Your task to perform on an android device: Open Youtube and go to the subscriptions tab Image 0: 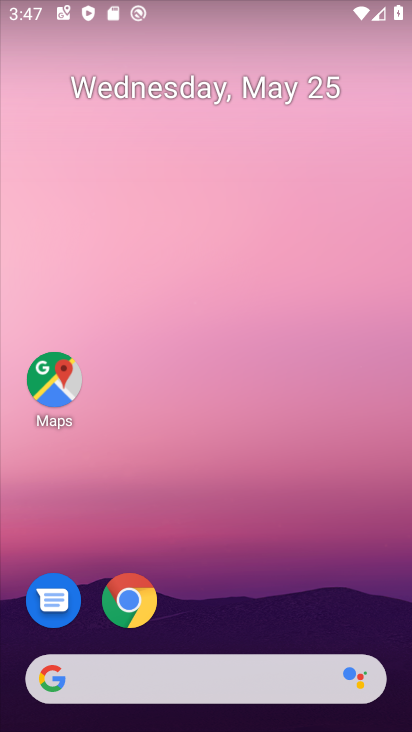
Step 0: press home button
Your task to perform on an android device: Open Youtube and go to the subscriptions tab Image 1: 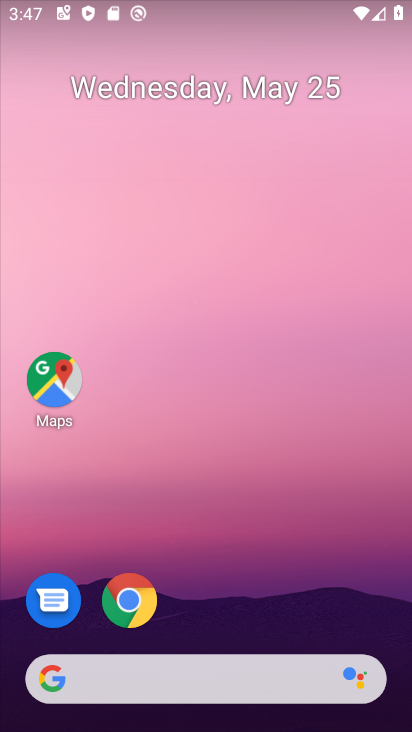
Step 1: drag from (34, 525) to (196, 195)
Your task to perform on an android device: Open Youtube and go to the subscriptions tab Image 2: 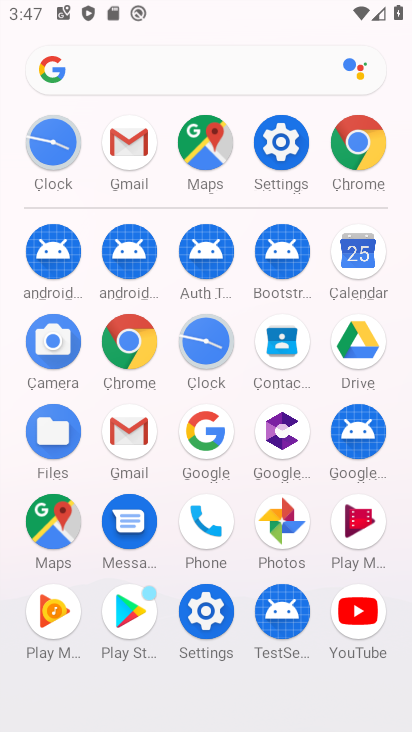
Step 2: click (364, 624)
Your task to perform on an android device: Open Youtube and go to the subscriptions tab Image 3: 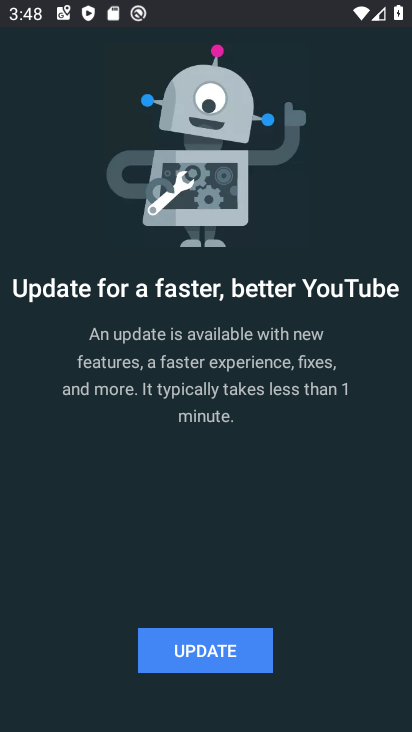
Step 3: task complete